Your task to perform on an android device: Open the stopwatch Image 0: 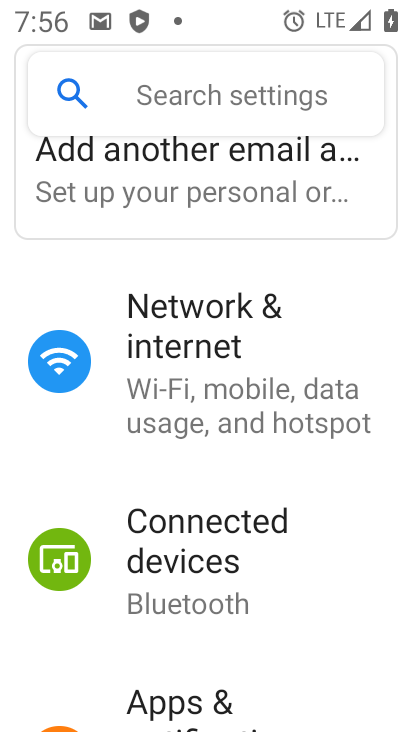
Step 0: press home button
Your task to perform on an android device: Open the stopwatch Image 1: 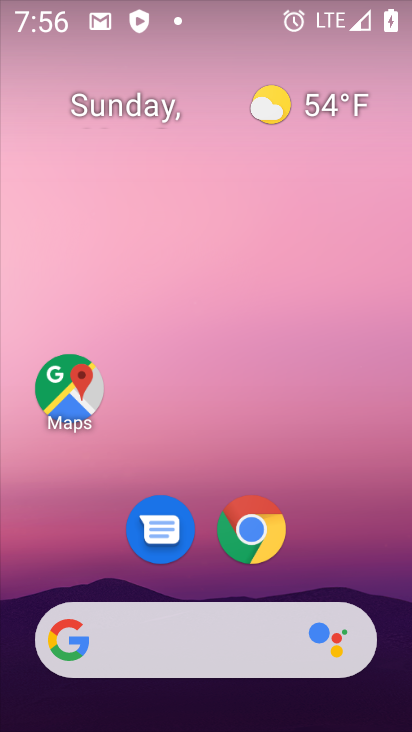
Step 1: drag from (298, 571) to (349, 81)
Your task to perform on an android device: Open the stopwatch Image 2: 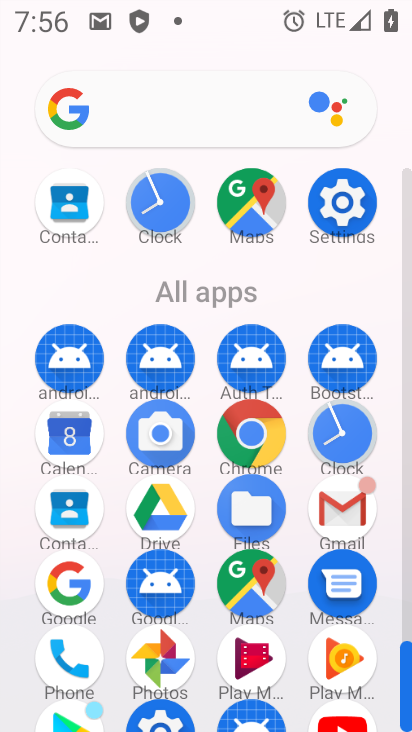
Step 2: click (332, 448)
Your task to perform on an android device: Open the stopwatch Image 3: 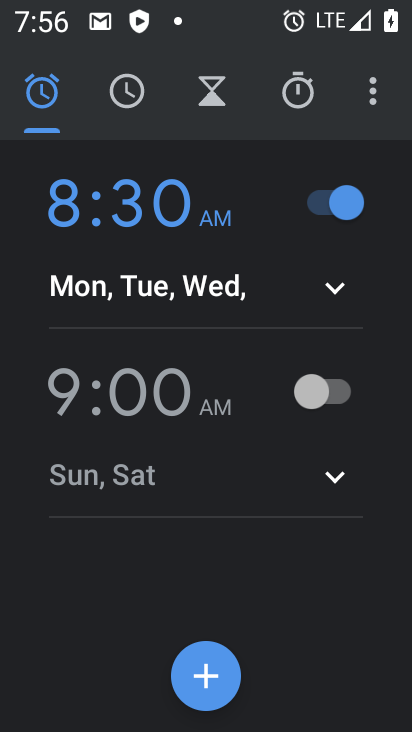
Step 3: click (274, 110)
Your task to perform on an android device: Open the stopwatch Image 4: 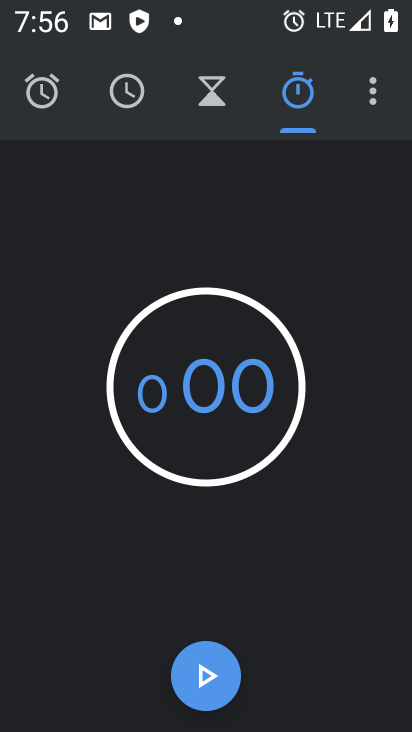
Step 4: click (208, 665)
Your task to perform on an android device: Open the stopwatch Image 5: 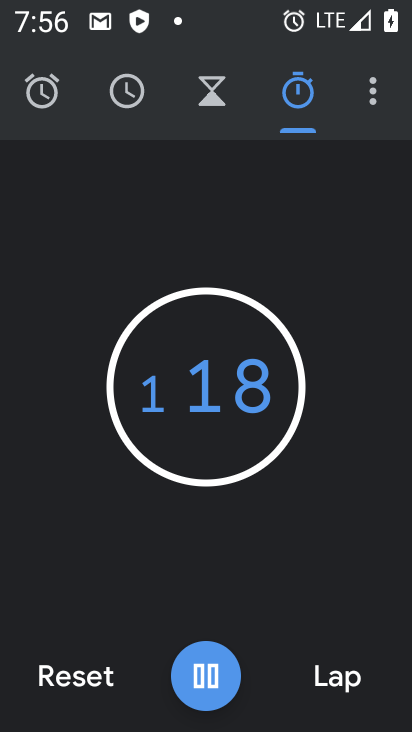
Step 5: task complete